Your task to perform on an android device: toggle priority inbox in the gmail app Image 0: 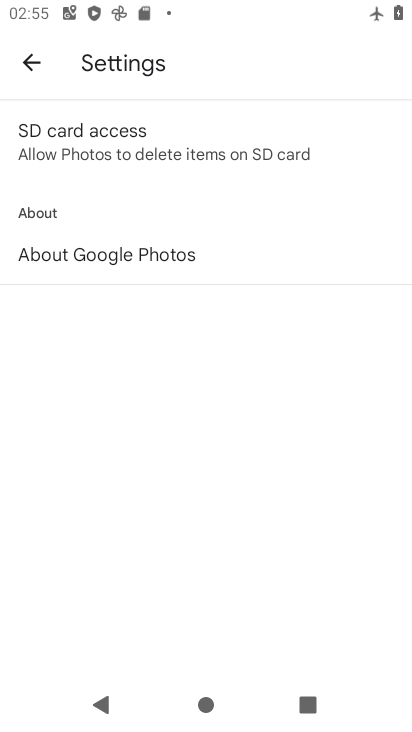
Step 0: drag from (164, 501) to (336, 171)
Your task to perform on an android device: toggle priority inbox in the gmail app Image 1: 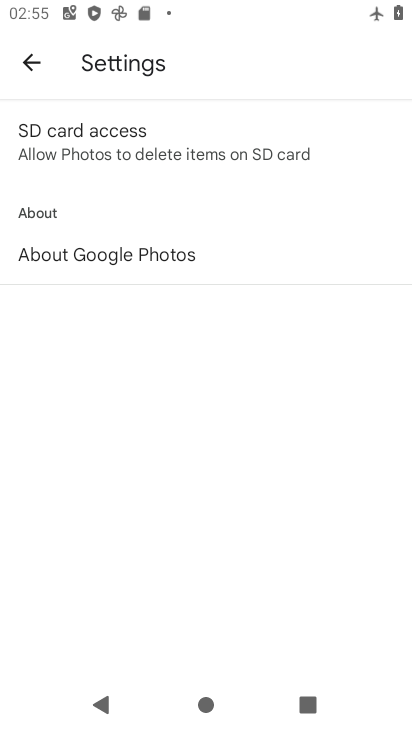
Step 1: press home button
Your task to perform on an android device: toggle priority inbox in the gmail app Image 2: 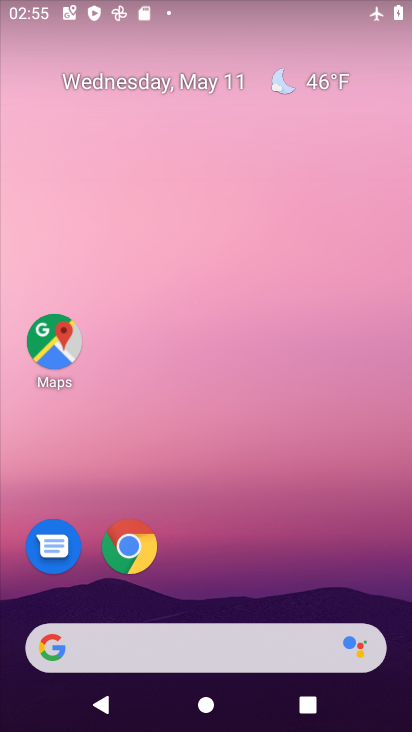
Step 2: drag from (199, 594) to (291, 198)
Your task to perform on an android device: toggle priority inbox in the gmail app Image 3: 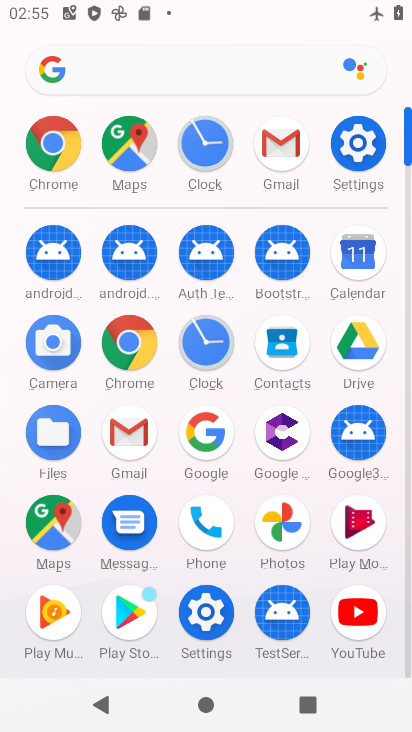
Step 3: click (129, 423)
Your task to perform on an android device: toggle priority inbox in the gmail app Image 4: 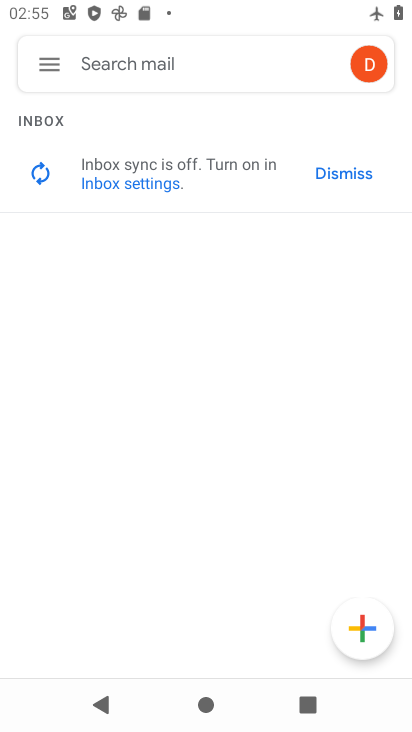
Step 4: click (53, 68)
Your task to perform on an android device: toggle priority inbox in the gmail app Image 5: 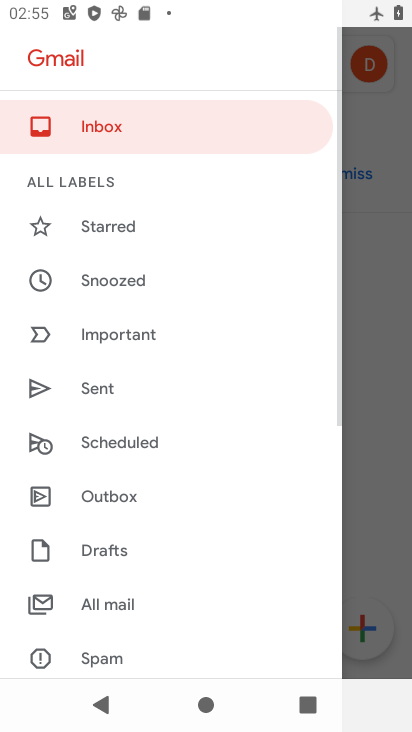
Step 5: drag from (111, 579) to (221, 3)
Your task to perform on an android device: toggle priority inbox in the gmail app Image 6: 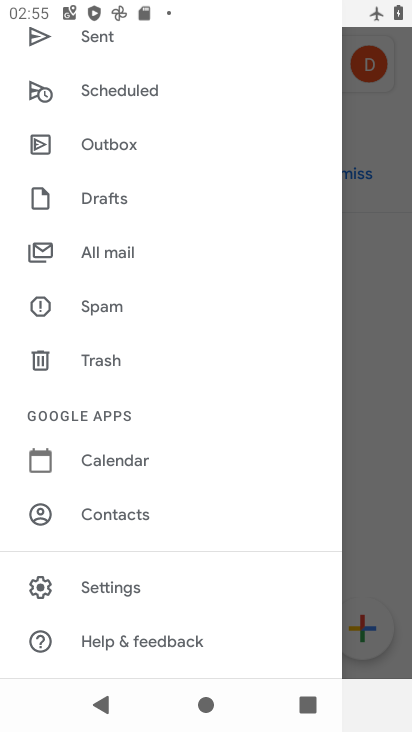
Step 6: click (105, 635)
Your task to perform on an android device: toggle priority inbox in the gmail app Image 7: 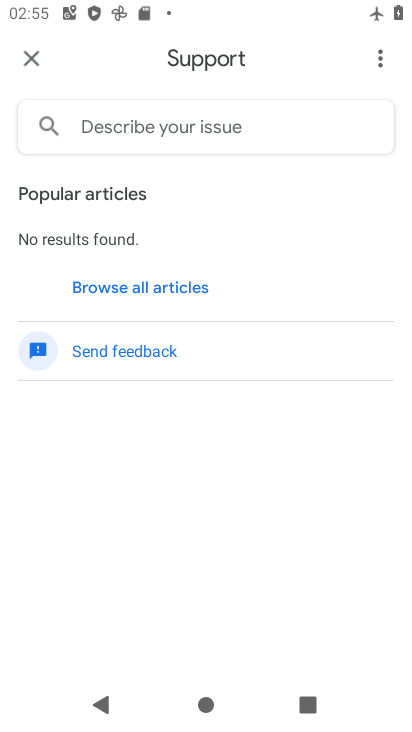
Step 7: click (52, 72)
Your task to perform on an android device: toggle priority inbox in the gmail app Image 8: 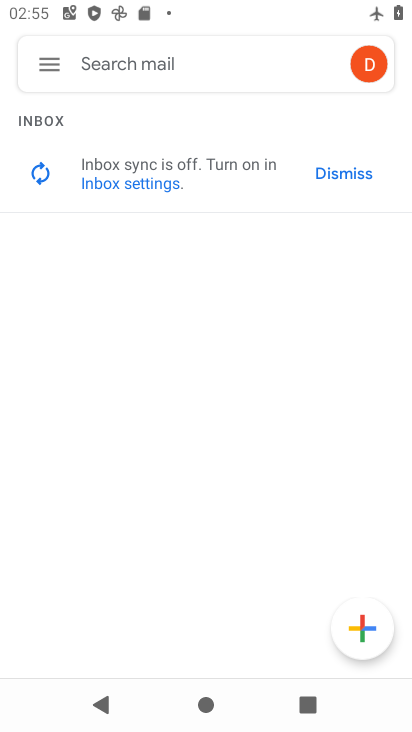
Step 8: click (47, 64)
Your task to perform on an android device: toggle priority inbox in the gmail app Image 9: 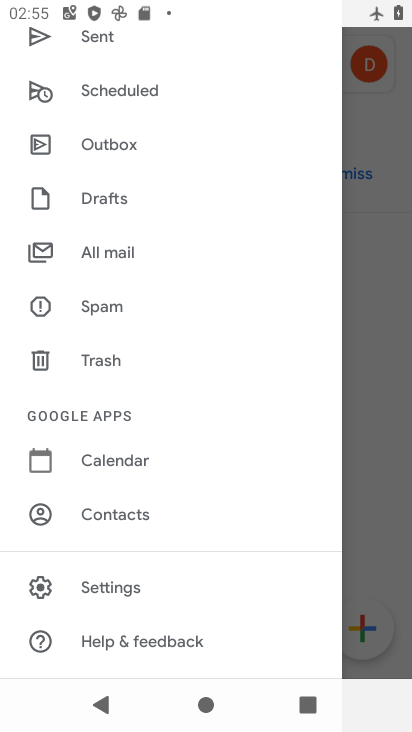
Step 9: click (119, 586)
Your task to perform on an android device: toggle priority inbox in the gmail app Image 10: 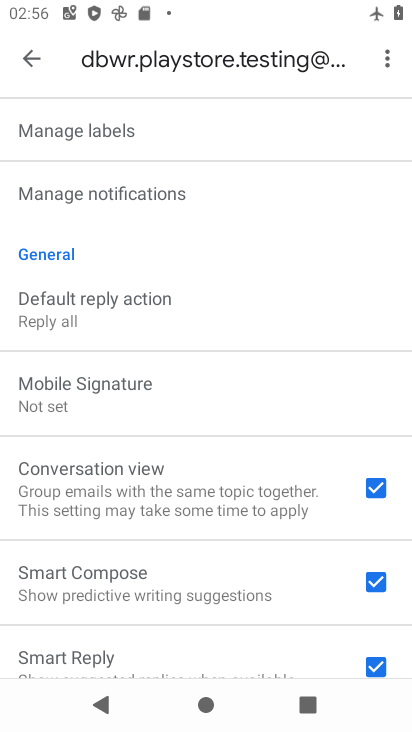
Step 10: drag from (177, 287) to (224, 659)
Your task to perform on an android device: toggle priority inbox in the gmail app Image 11: 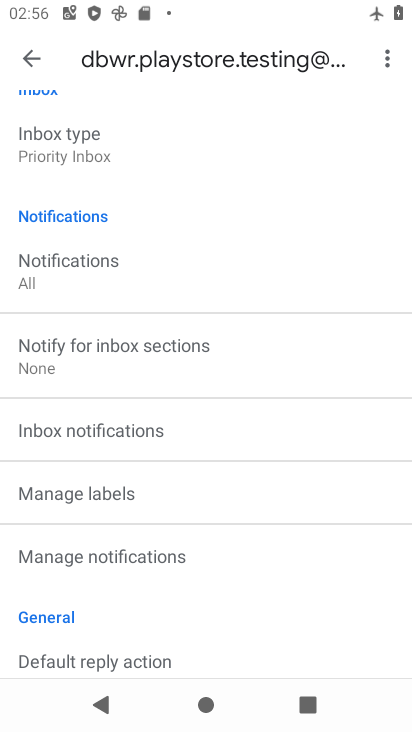
Step 11: click (120, 142)
Your task to perform on an android device: toggle priority inbox in the gmail app Image 12: 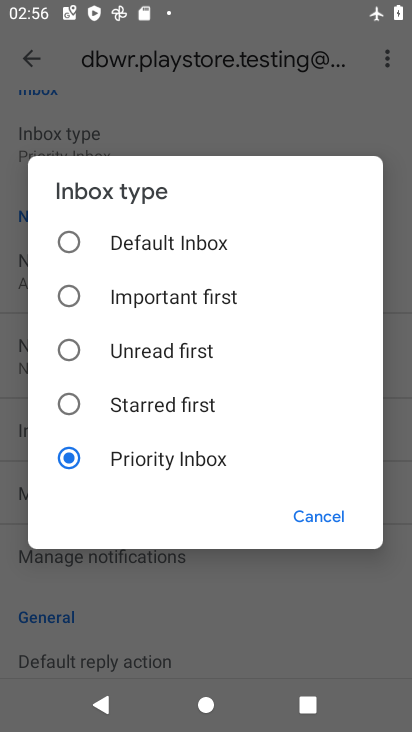
Step 12: click (145, 243)
Your task to perform on an android device: toggle priority inbox in the gmail app Image 13: 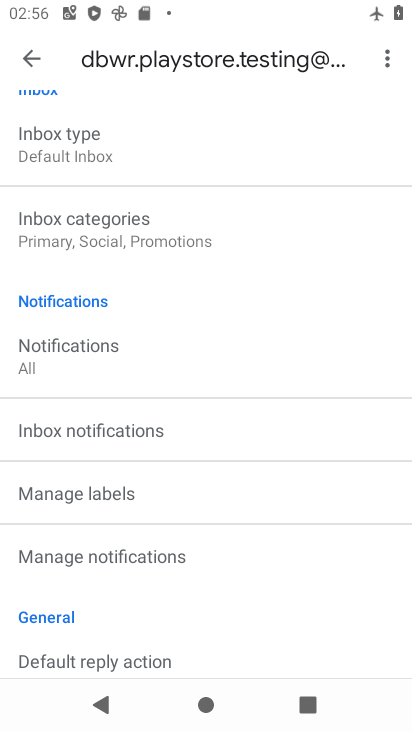
Step 13: task complete